Your task to perform on an android device: turn off priority inbox in the gmail app Image 0: 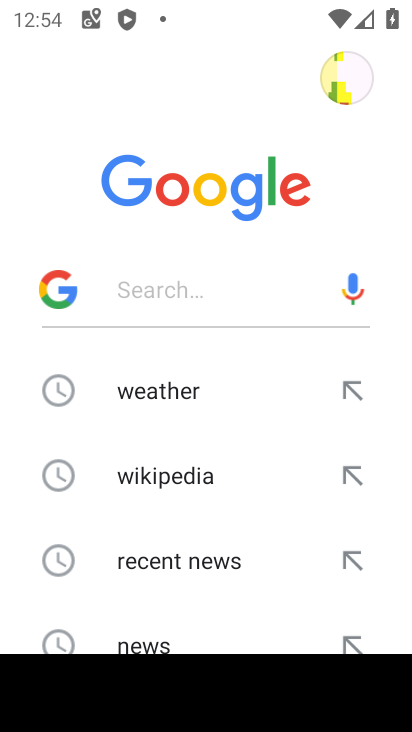
Step 0: press home button
Your task to perform on an android device: turn off priority inbox in the gmail app Image 1: 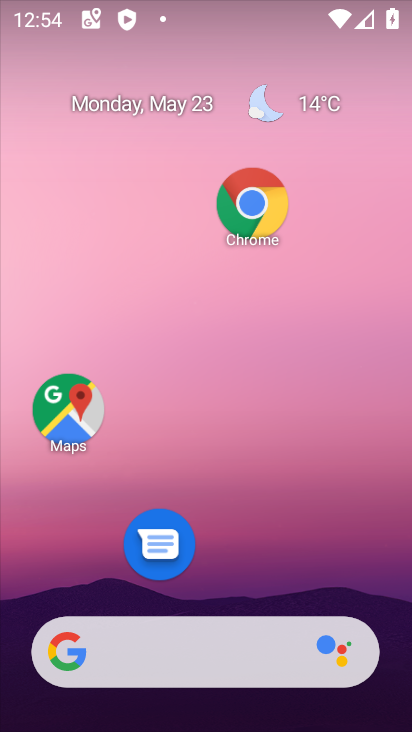
Step 1: drag from (258, 429) to (282, 39)
Your task to perform on an android device: turn off priority inbox in the gmail app Image 2: 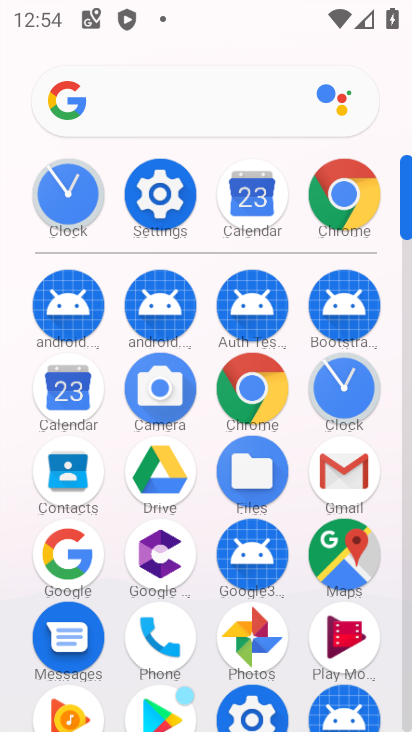
Step 2: click (340, 476)
Your task to perform on an android device: turn off priority inbox in the gmail app Image 3: 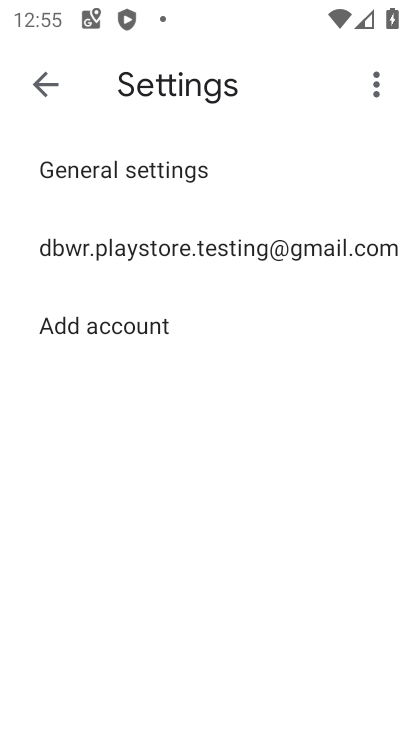
Step 3: click (254, 253)
Your task to perform on an android device: turn off priority inbox in the gmail app Image 4: 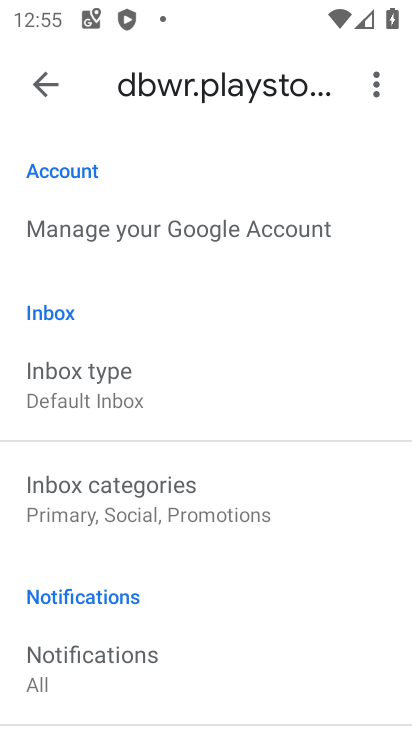
Step 4: drag from (213, 458) to (273, 330)
Your task to perform on an android device: turn off priority inbox in the gmail app Image 5: 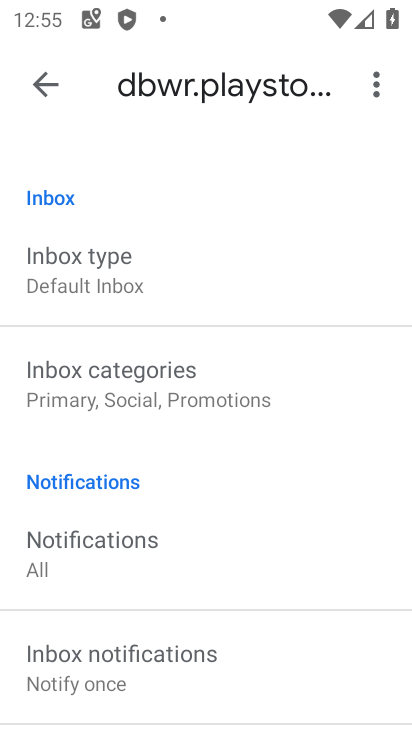
Step 5: click (144, 265)
Your task to perform on an android device: turn off priority inbox in the gmail app Image 6: 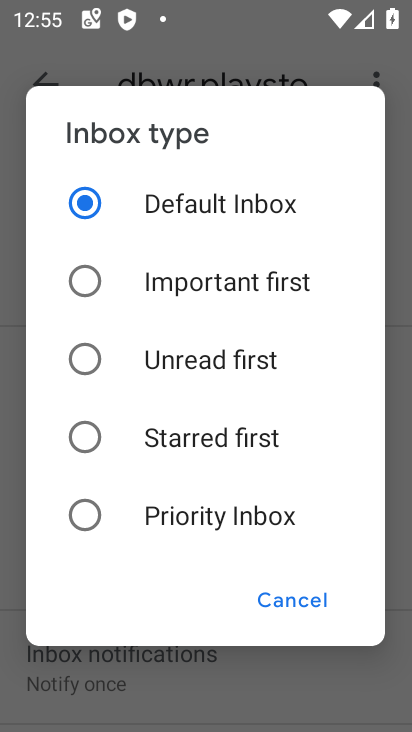
Step 6: click (183, 526)
Your task to perform on an android device: turn off priority inbox in the gmail app Image 7: 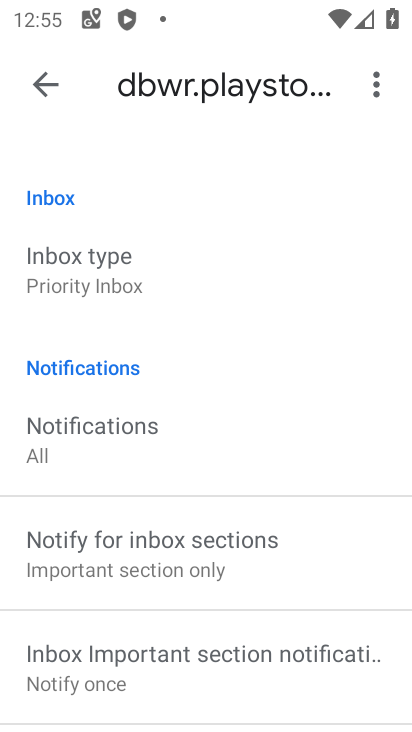
Step 7: click (146, 267)
Your task to perform on an android device: turn off priority inbox in the gmail app Image 8: 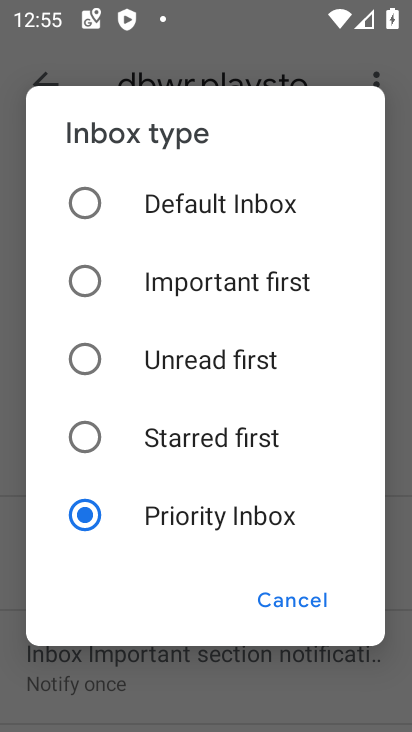
Step 8: task complete